Your task to perform on an android device: delete location history Image 0: 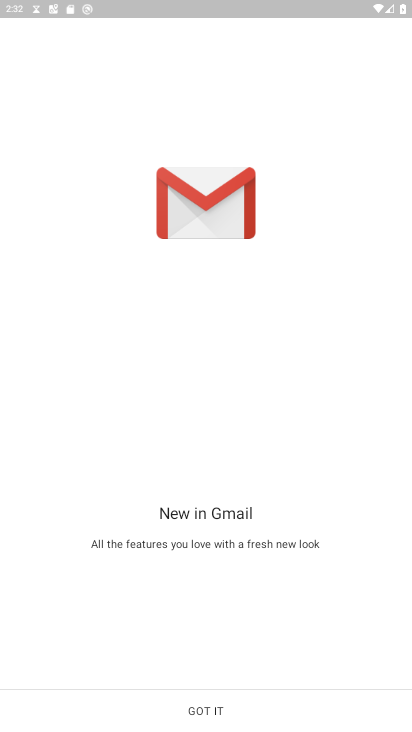
Step 0: press home button
Your task to perform on an android device: delete location history Image 1: 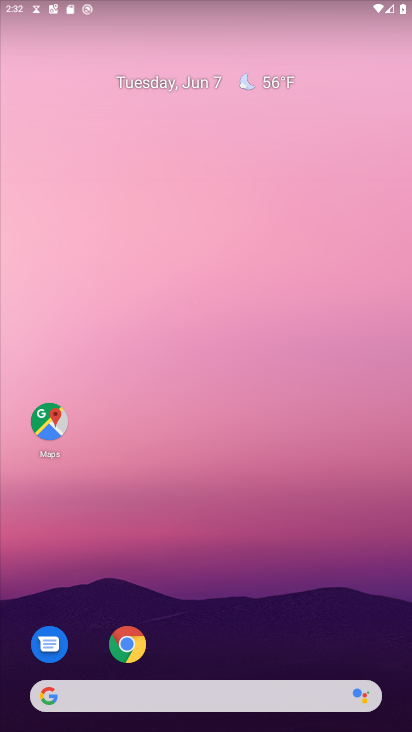
Step 1: click (47, 420)
Your task to perform on an android device: delete location history Image 2: 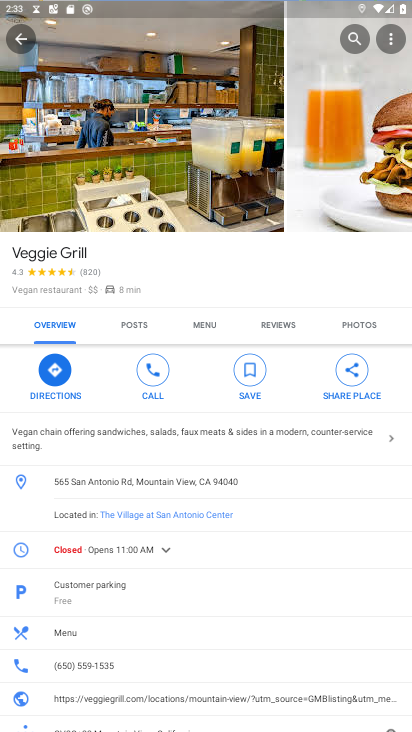
Step 2: click (18, 37)
Your task to perform on an android device: delete location history Image 3: 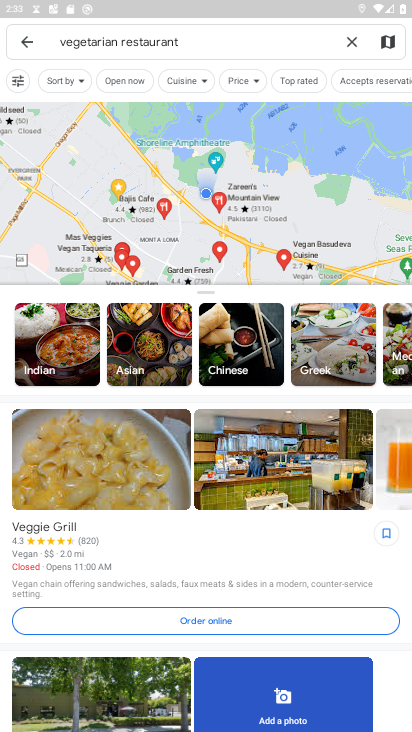
Step 3: click (29, 42)
Your task to perform on an android device: delete location history Image 4: 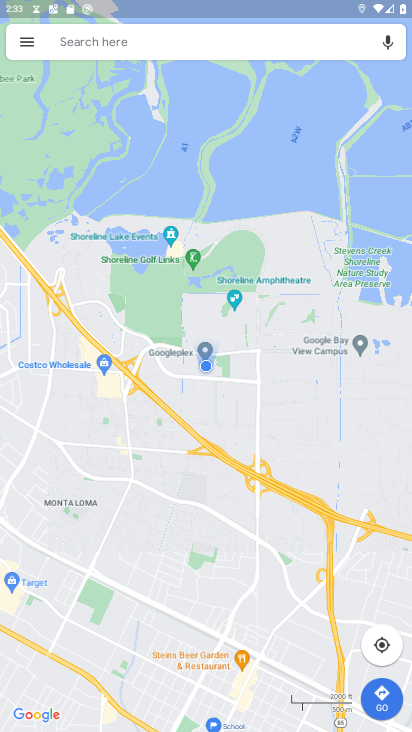
Step 4: click (29, 42)
Your task to perform on an android device: delete location history Image 5: 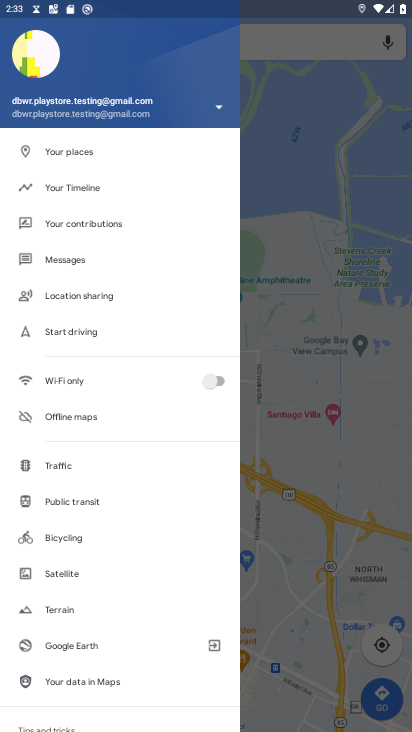
Step 5: click (101, 183)
Your task to perform on an android device: delete location history Image 6: 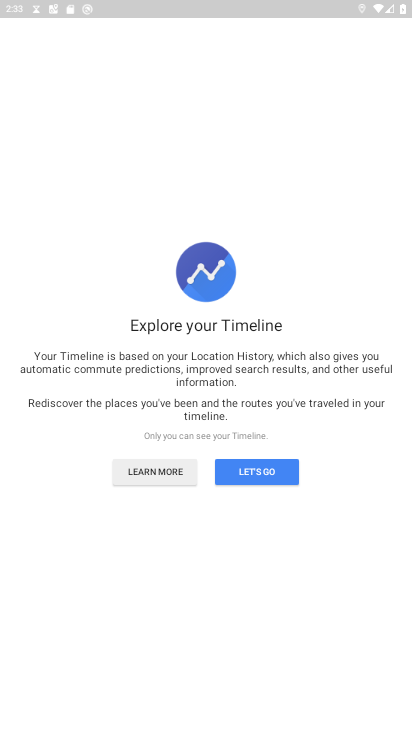
Step 6: click (256, 470)
Your task to perform on an android device: delete location history Image 7: 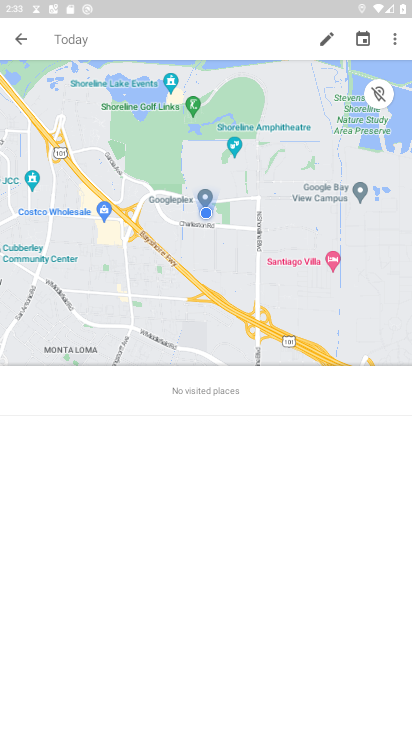
Step 7: click (394, 36)
Your task to perform on an android device: delete location history Image 8: 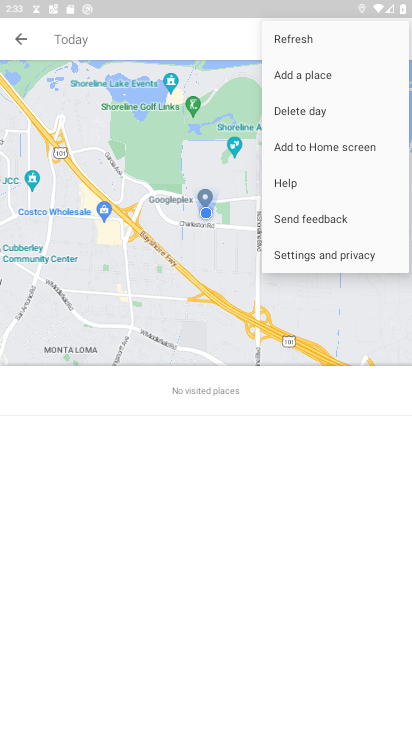
Step 8: click (343, 256)
Your task to perform on an android device: delete location history Image 9: 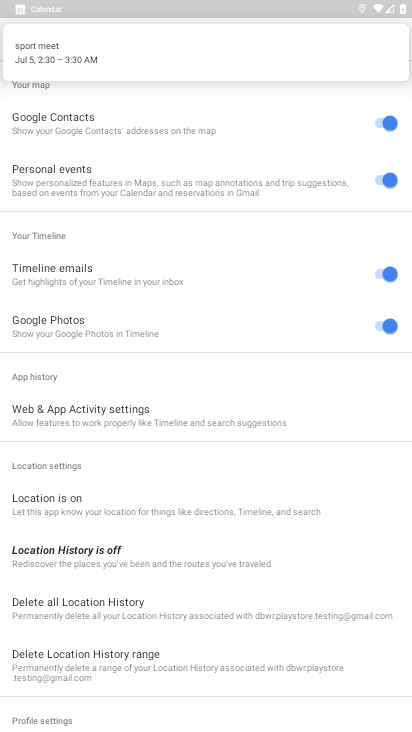
Step 9: drag from (187, 222) to (209, 612)
Your task to perform on an android device: delete location history Image 10: 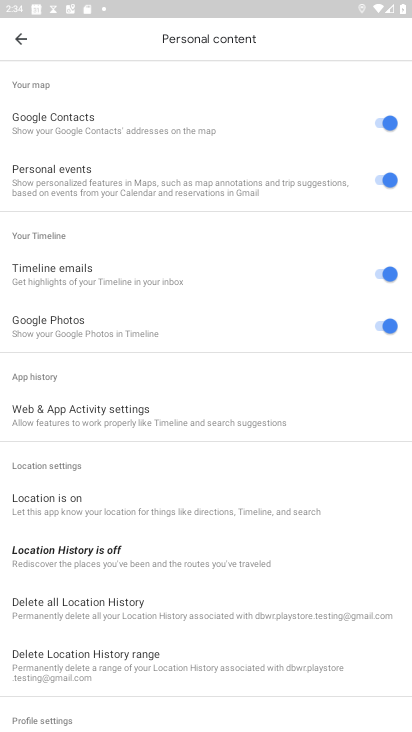
Step 10: click (154, 600)
Your task to perform on an android device: delete location history Image 11: 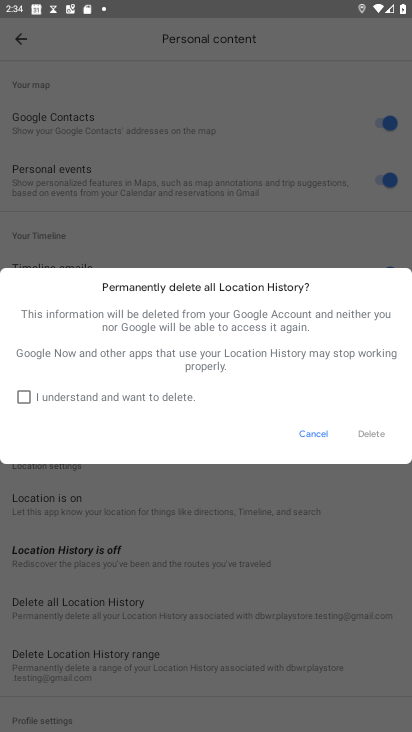
Step 11: click (22, 394)
Your task to perform on an android device: delete location history Image 12: 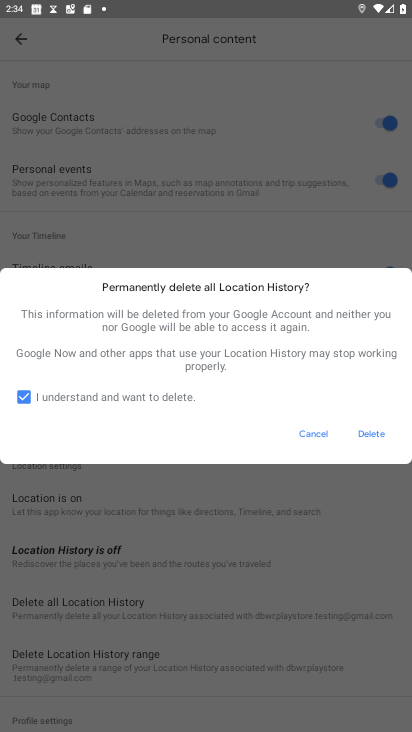
Step 12: click (370, 434)
Your task to perform on an android device: delete location history Image 13: 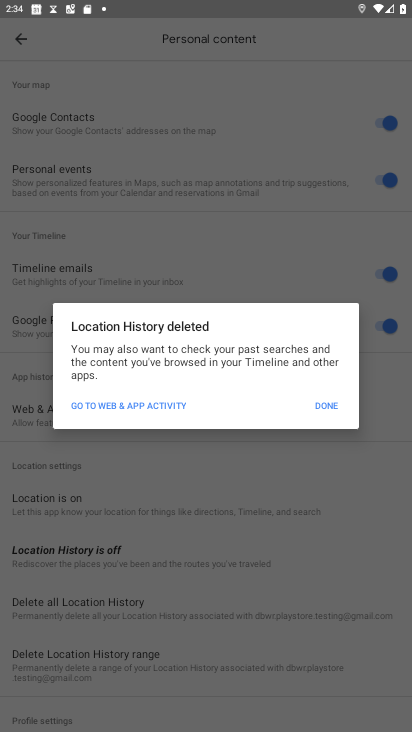
Step 13: click (327, 404)
Your task to perform on an android device: delete location history Image 14: 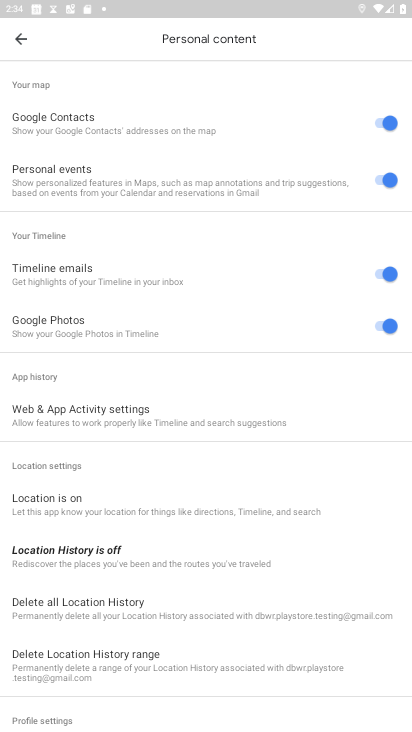
Step 14: task complete